Your task to perform on an android device: toggle sleep mode Image 0: 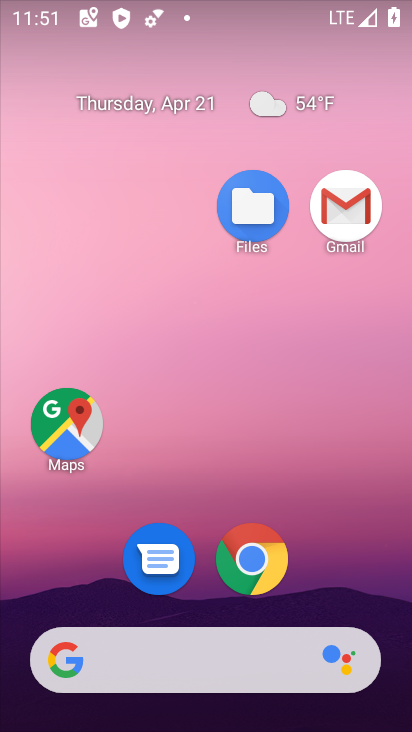
Step 0: drag from (243, 622) to (366, 75)
Your task to perform on an android device: toggle sleep mode Image 1: 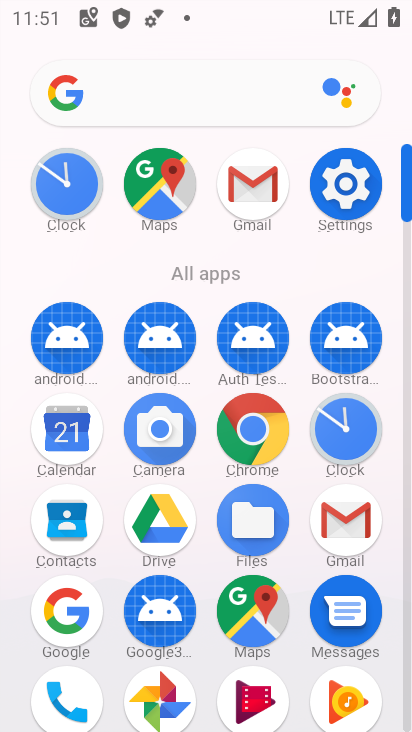
Step 1: click (326, 176)
Your task to perform on an android device: toggle sleep mode Image 2: 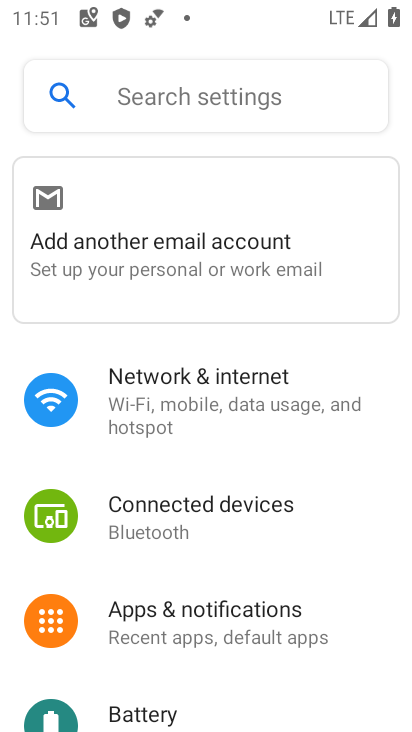
Step 2: drag from (267, 627) to (306, 110)
Your task to perform on an android device: toggle sleep mode Image 3: 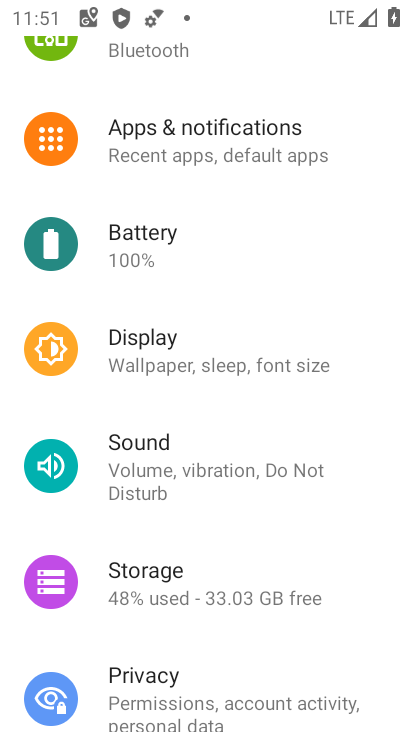
Step 3: click (144, 367)
Your task to perform on an android device: toggle sleep mode Image 4: 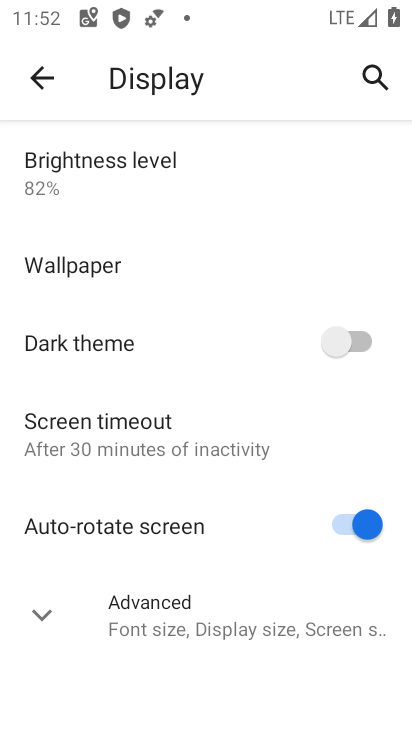
Step 4: click (126, 471)
Your task to perform on an android device: toggle sleep mode Image 5: 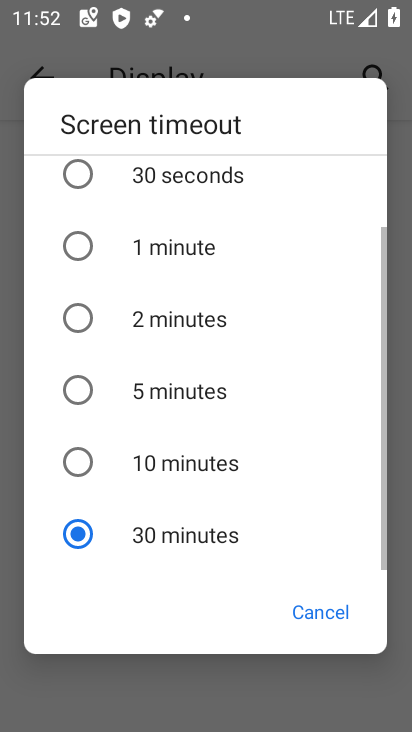
Step 5: click (133, 458)
Your task to perform on an android device: toggle sleep mode Image 6: 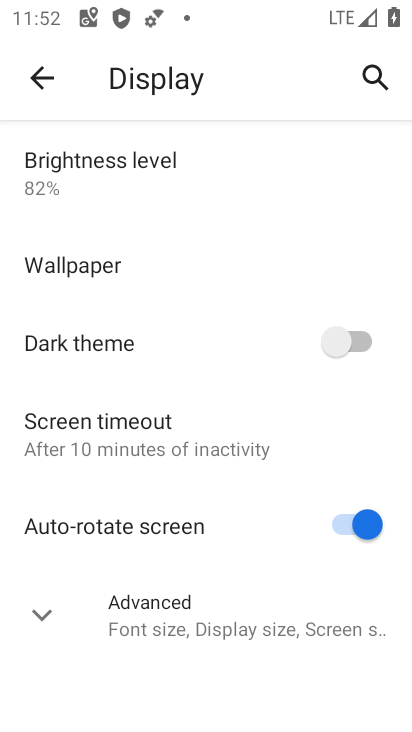
Step 6: task complete